Your task to perform on an android device: toggle sleep mode Image 0: 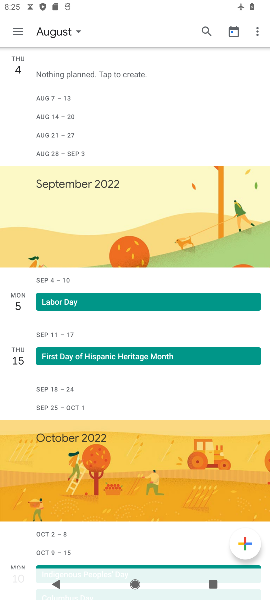
Step 0: press home button
Your task to perform on an android device: toggle sleep mode Image 1: 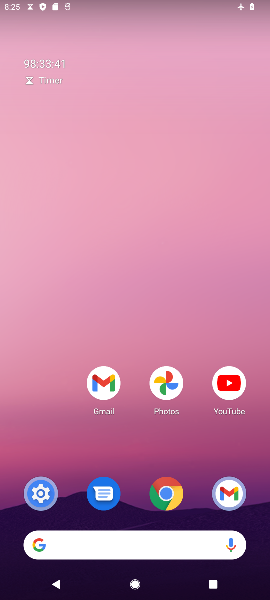
Step 1: drag from (113, 497) to (143, 91)
Your task to perform on an android device: toggle sleep mode Image 2: 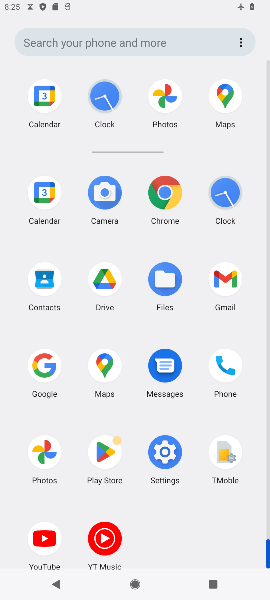
Step 2: click (162, 441)
Your task to perform on an android device: toggle sleep mode Image 3: 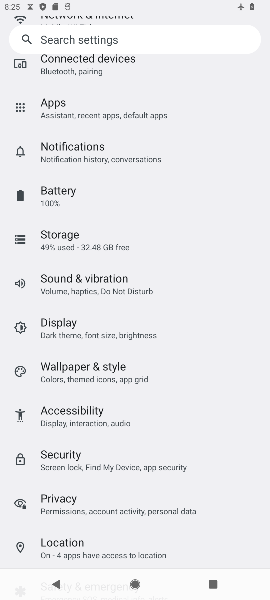
Step 3: task complete